Your task to perform on an android device: Open display settings Image 0: 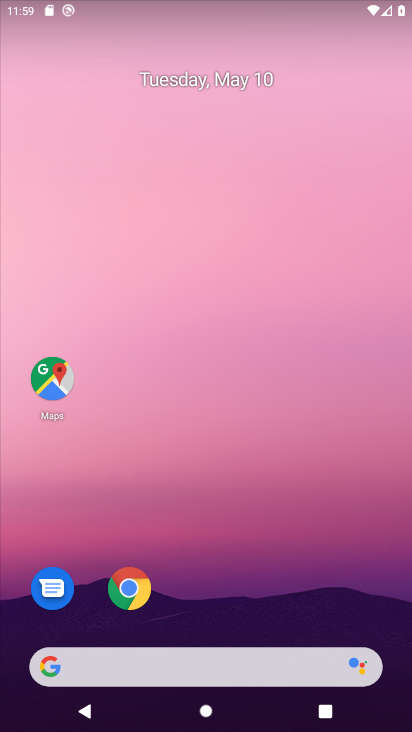
Step 0: drag from (171, 610) to (169, 148)
Your task to perform on an android device: Open display settings Image 1: 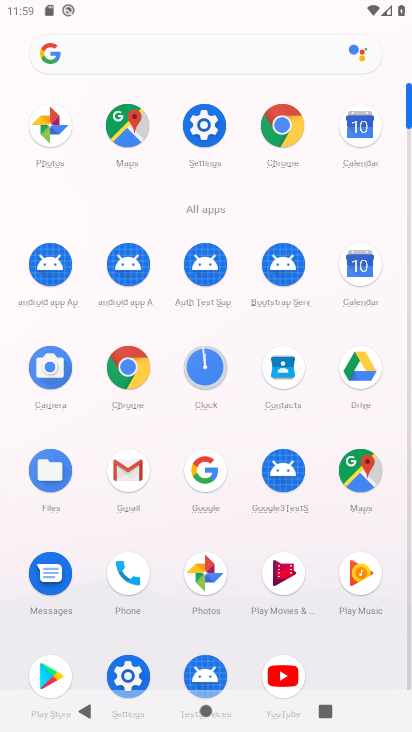
Step 1: click (210, 129)
Your task to perform on an android device: Open display settings Image 2: 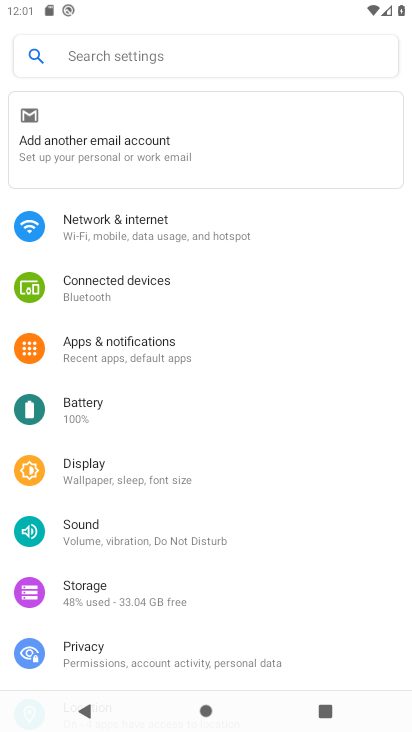
Step 2: click (121, 472)
Your task to perform on an android device: Open display settings Image 3: 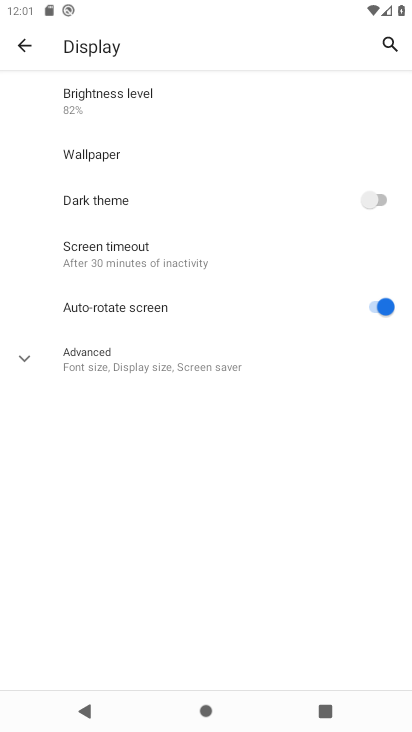
Step 3: click (100, 363)
Your task to perform on an android device: Open display settings Image 4: 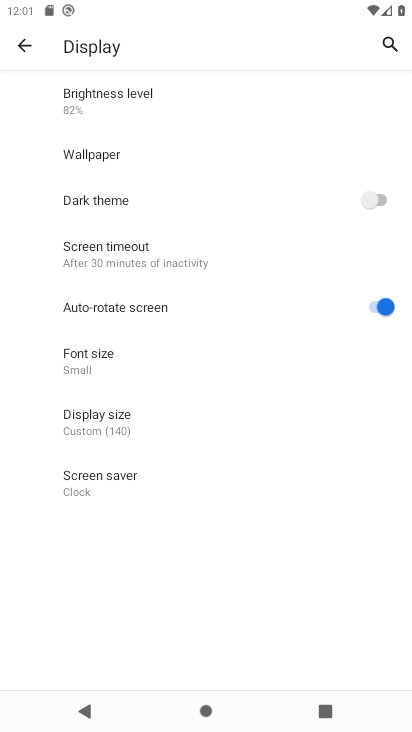
Step 4: task complete